Your task to perform on an android device: turn on priority inbox in the gmail app Image 0: 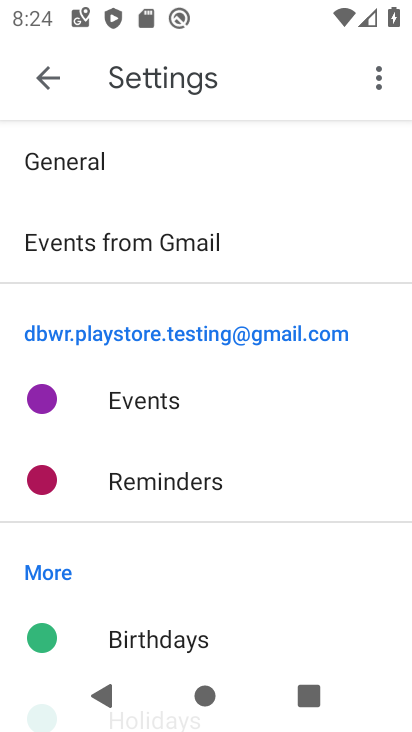
Step 0: press home button
Your task to perform on an android device: turn on priority inbox in the gmail app Image 1: 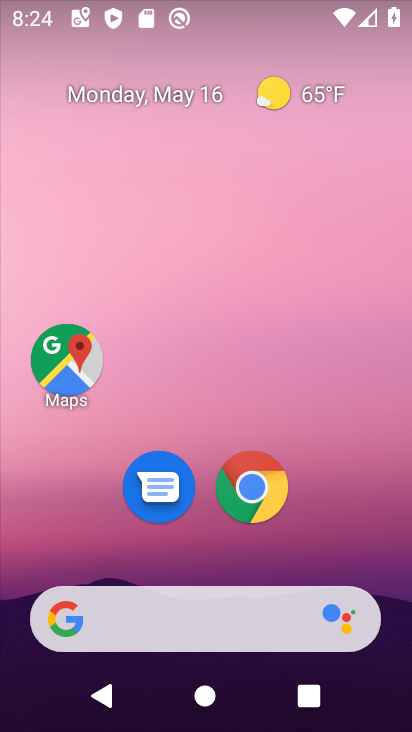
Step 1: drag from (358, 547) to (351, 109)
Your task to perform on an android device: turn on priority inbox in the gmail app Image 2: 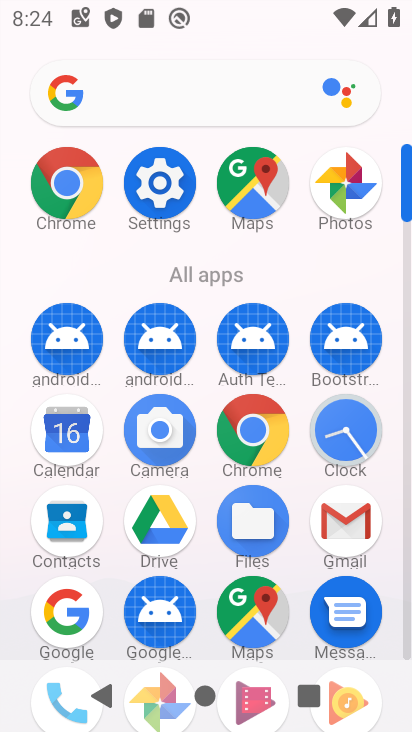
Step 2: click (359, 532)
Your task to perform on an android device: turn on priority inbox in the gmail app Image 3: 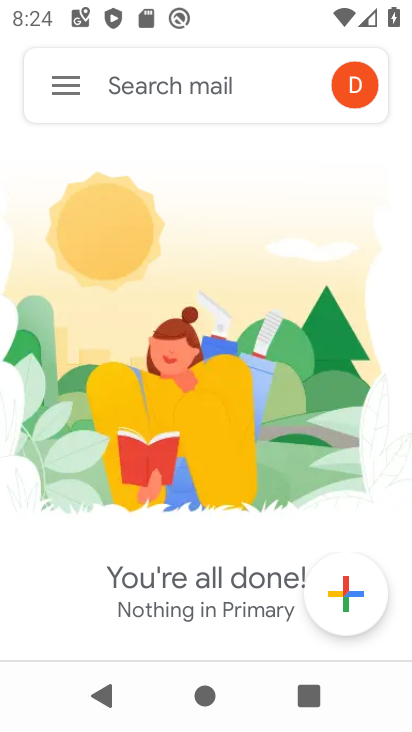
Step 3: click (64, 80)
Your task to perform on an android device: turn on priority inbox in the gmail app Image 4: 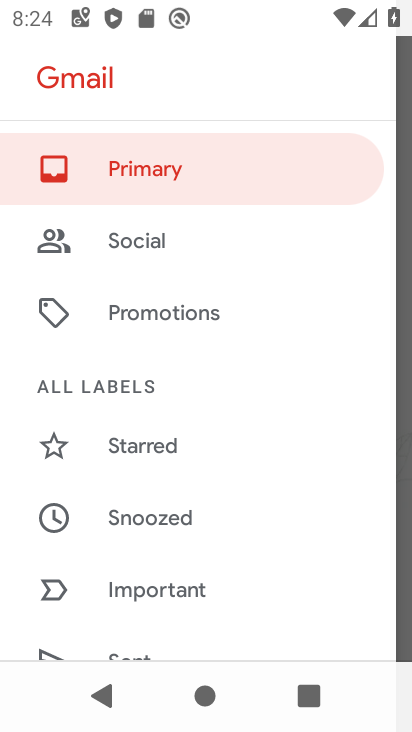
Step 4: drag from (292, 556) to (304, 396)
Your task to perform on an android device: turn on priority inbox in the gmail app Image 5: 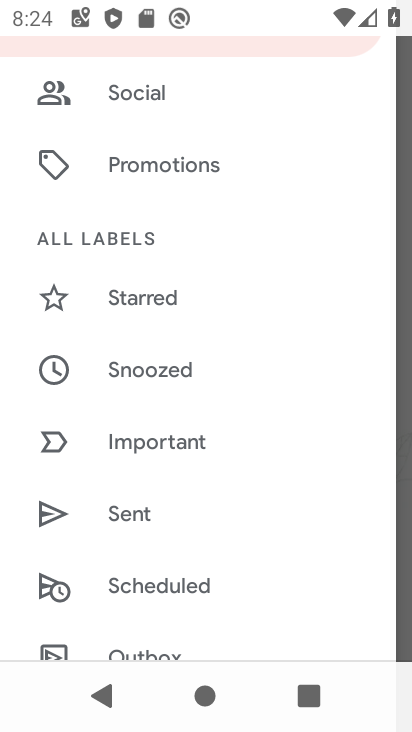
Step 5: drag from (289, 576) to (280, 391)
Your task to perform on an android device: turn on priority inbox in the gmail app Image 6: 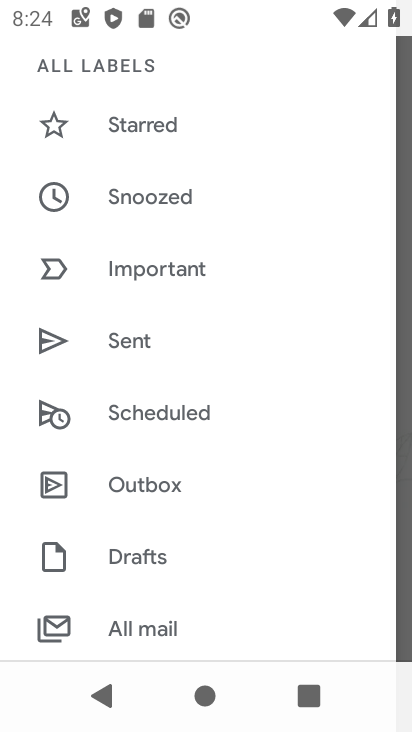
Step 6: drag from (265, 590) to (263, 429)
Your task to perform on an android device: turn on priority inbox in the gmail app Image 7: 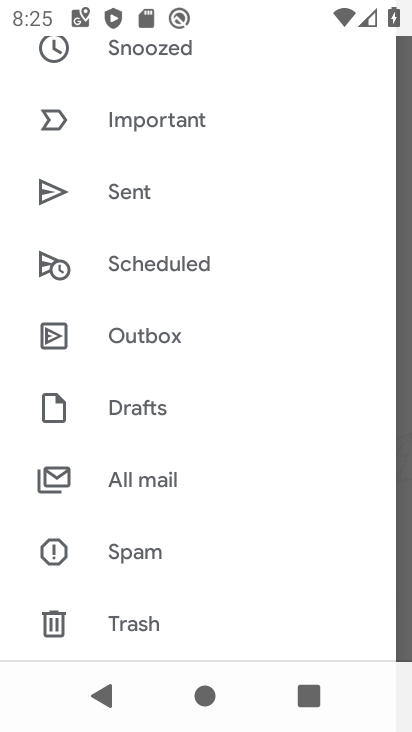
Step 7: drag from (261, 601) to (261, 436)
Your task to perform on an android device: turn on priority inbox in the gmail app Image 8: 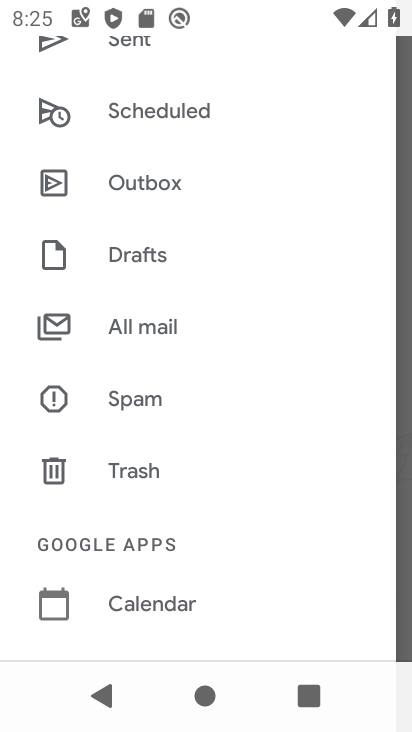
Step 8: drag from (250, 615) to (257, 484)
Your task to perform on an android device: turn on priority inbox in the gmail app Image 9: 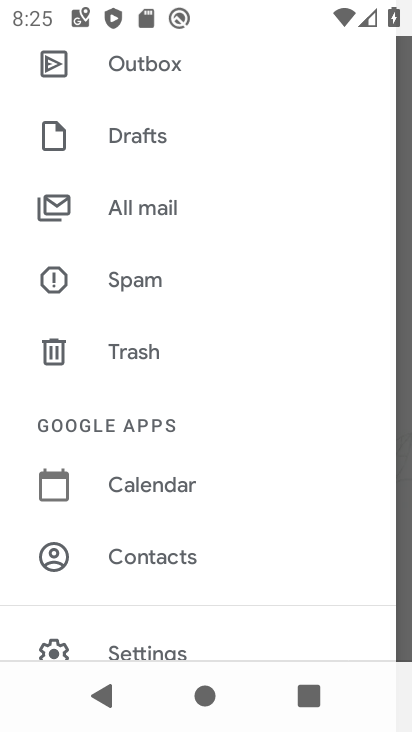
Step 9: drag from (256, 614) to (270, 479)
Your task to perform on an android device: turn on priority inbox in the gmail app Image 10: 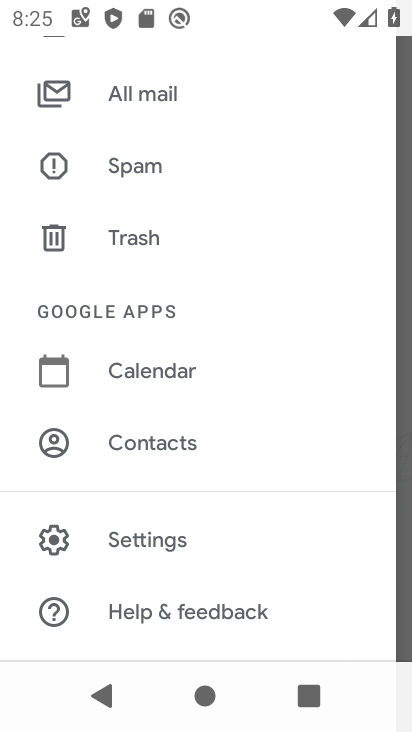
Step 10: click (157, 544)
Your task to perform on an android device: turn on priority inbox in the gmail app Image 11: 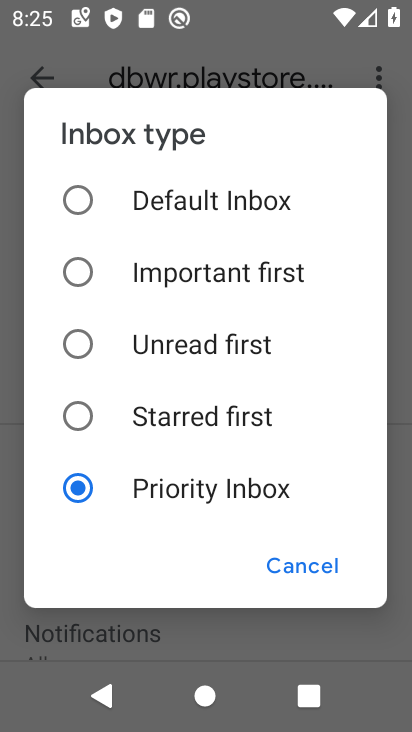
Step 11: task complete